Your task to perform on an android device: When is my next appointment? Image 0: 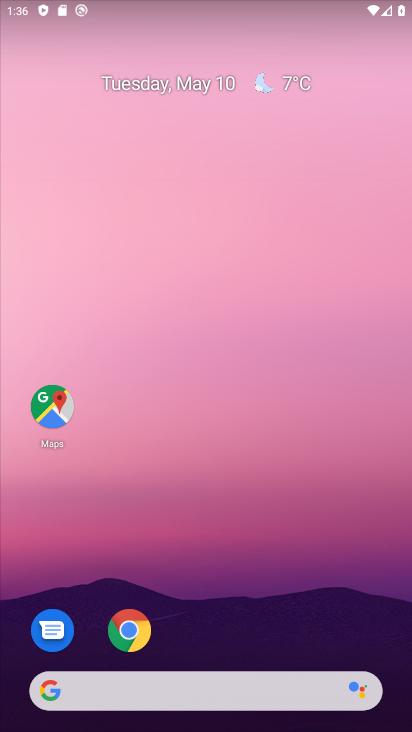
Step 0: drag from (243, 581) to (249, 9)
Your task to perform on an android device: When is my next appointment? Image 1: 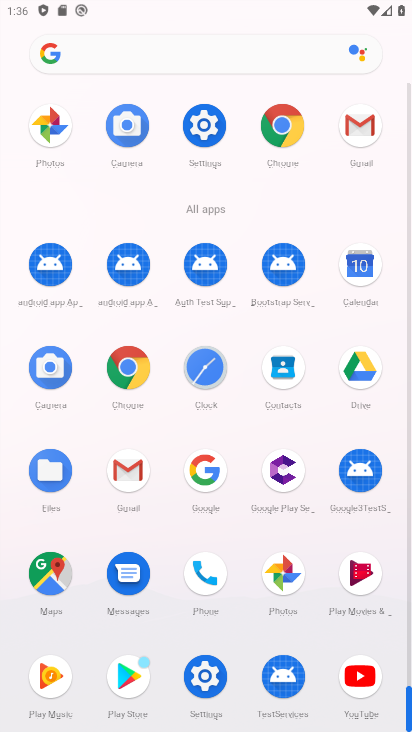
Step 1: click (361, 263)
Your task to perform on an android device: When is my next appointment? Image 2: 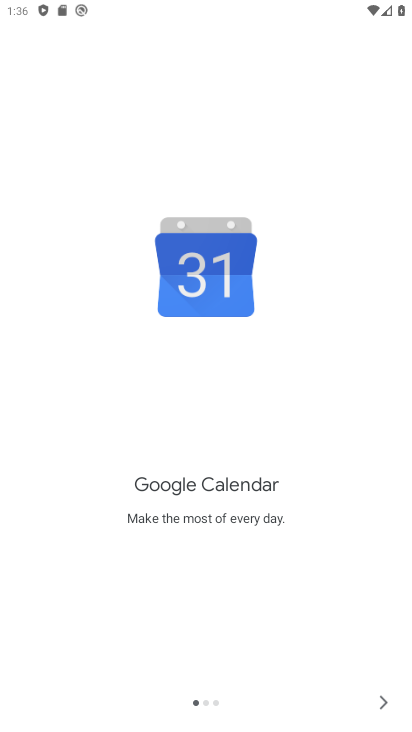
Step 2: click (377, 699)
Your task to perform on an android device: When is my next appointment? Image 3: 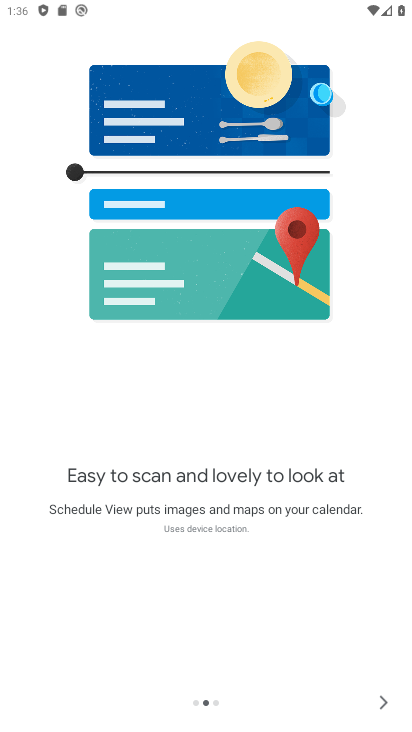
Step 3: click (377, 699)
Your task to perform on an android device: When is my next appointment? Image 4: 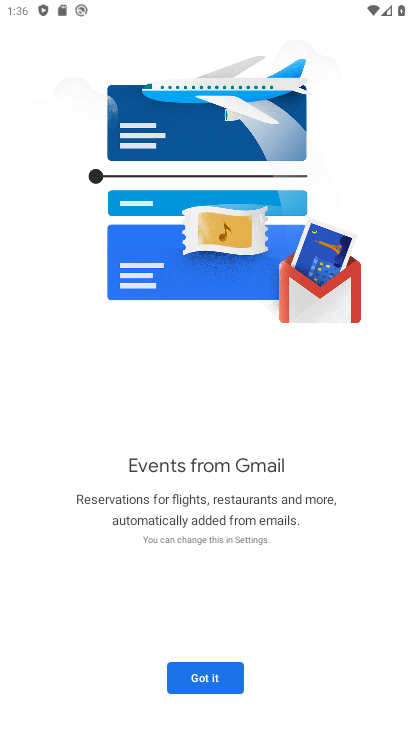
Step 4: click (377, 699)
Your task to perform on an android device: When is my next appointment? Image 5: 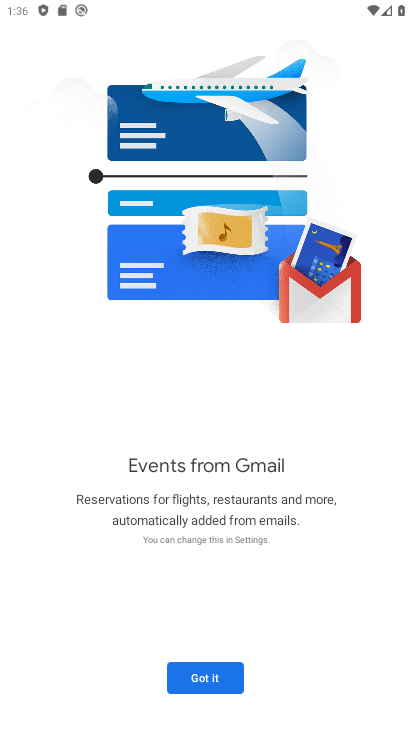
Step 5: click (227, 681)
Your task to perform on an android device: When is my next appointment? Image 6: 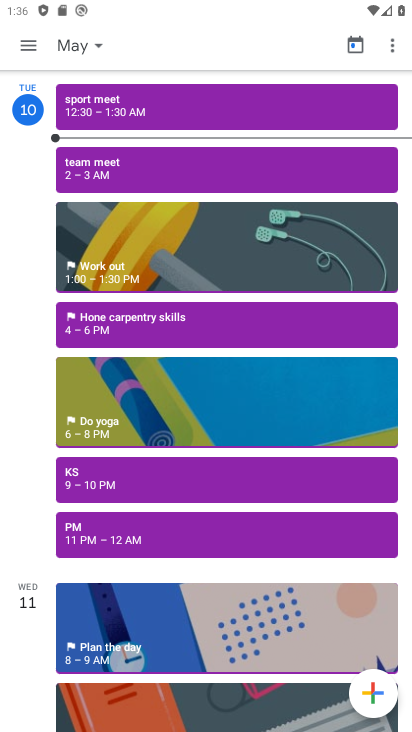
Step 6: click (32, 53)
Your task to perform on an android device: When is my next appointment? Image 7: 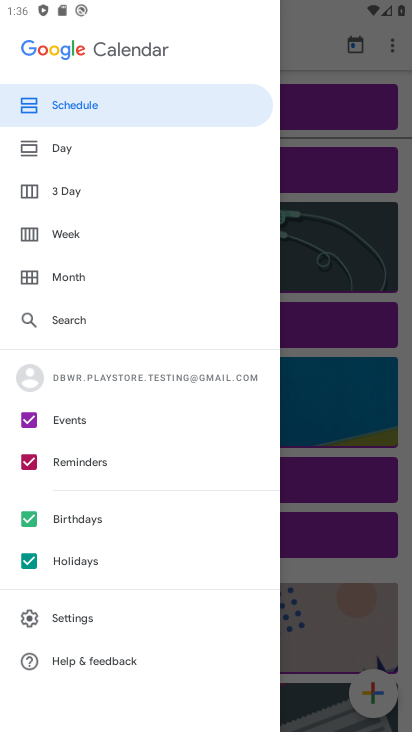
Step 7: click (24, 562)
Your task to perform on an android device: When is my next appointment? Image 8: 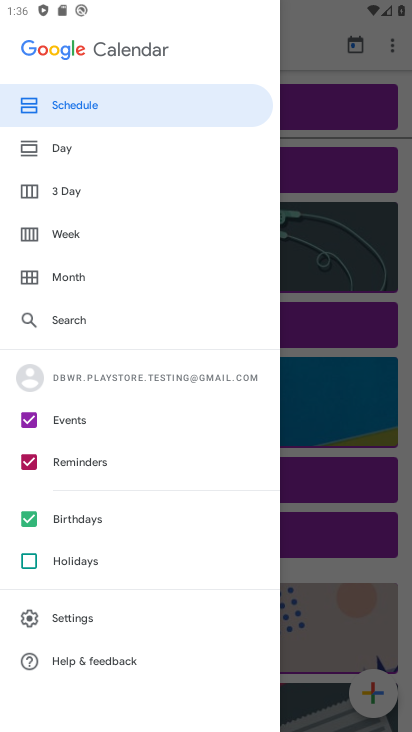
Step 8: click (27, 525)
Your task to perform on an android device: When is my next appointment? Image 9: 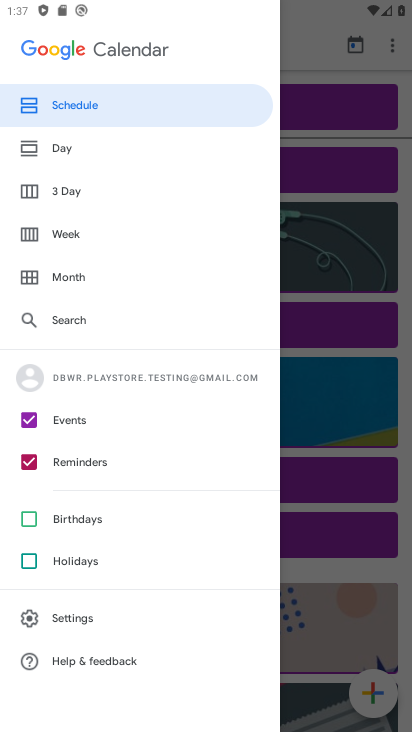
Step 9: click (46, 103)
Your task to perform on an android device: When is my next appointment? Image 10: 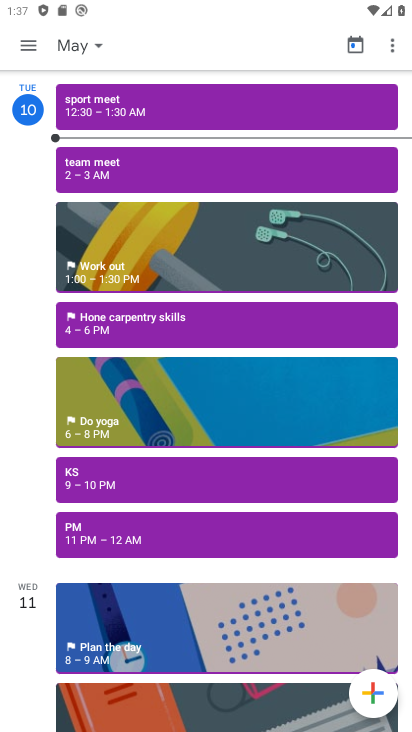
Step 10: task complete